Your task to perform on an android device: Open notification settings Image 0: 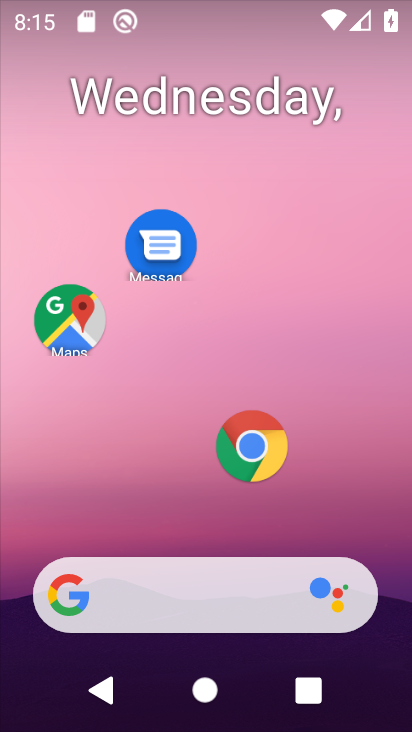
Step 0: press home button
Your task to perform on an android device: Open notification settings Image 1: 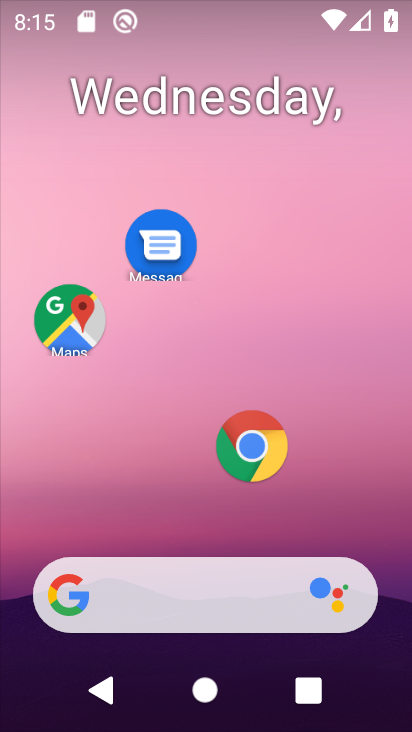
Step 1: drag from (311, 532) to (335, 22)
Your task to perform on an android device: Open notification settings Image 2: 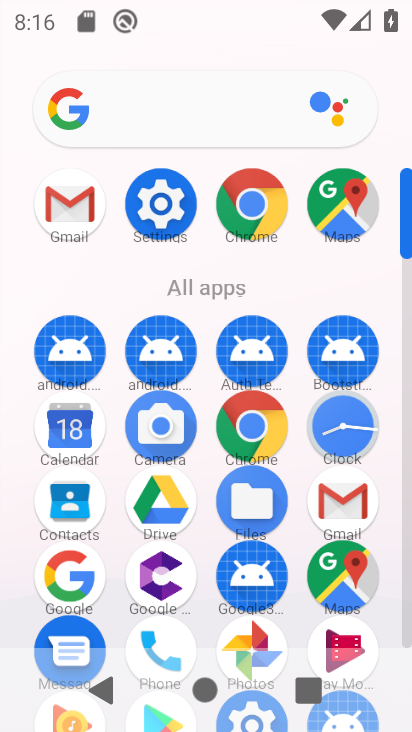
Step 2: click (161, 202)
Your task to perform on an android device: Open notification settings Image 3: 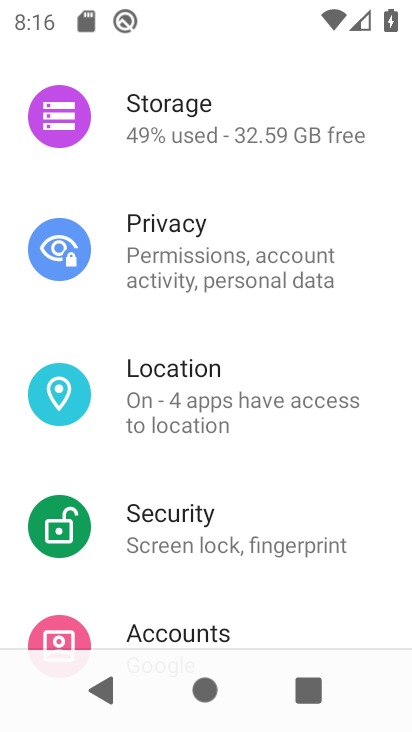
Step 3: drag from (112, 137) to (96, 652)
Your task to perform on an android device: Open notification settings Image 4: 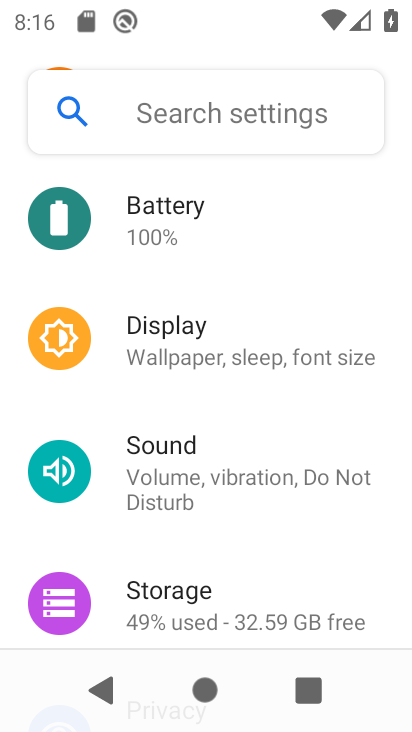
Step 4: drag from (102, 193) to (100, 689)
Your task to perform on an android device: Open notification settings Image 5: 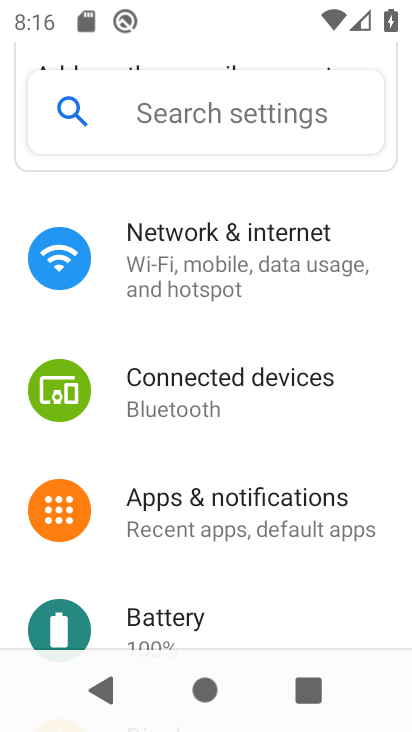
Step 5: click (107, 500)
Your task to perform on an android device: Open notification settings Image 6: 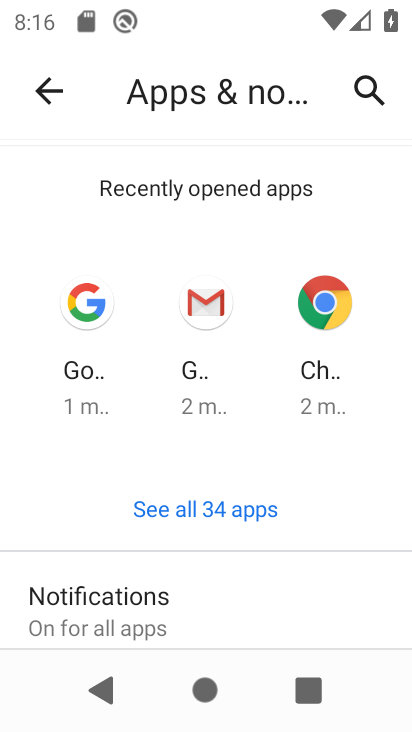
Step 6: click (176, 614)
Your task to perform on an android device: Open notification settings Image 7: 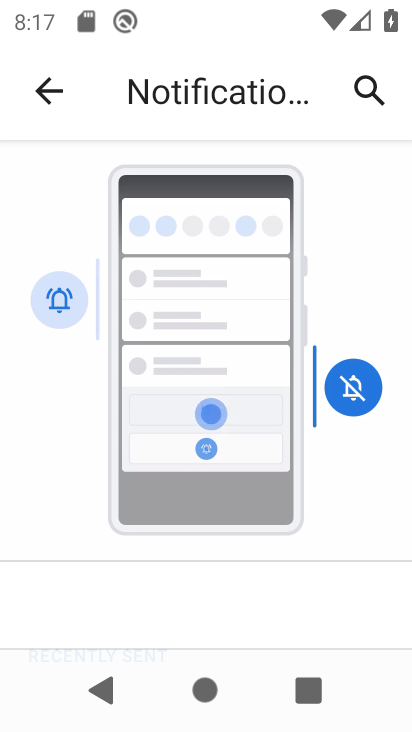
Step 7: drag from (215, 619) to (207, 170)
Your task to perform on an android device: Open notification settings Image 8: 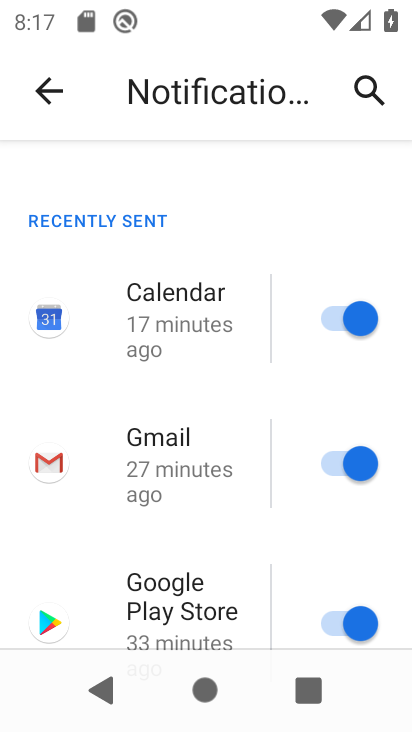
Step 8: drag from (222, 558) to (231, 106)
Your task to perform on an android device: Open notification settings Image 9: 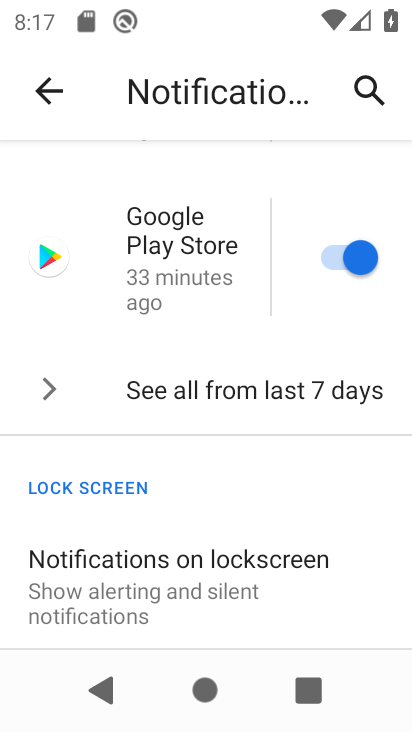
Step 9: drag from (195, 575) to (187, 188)
Your task to perform on an android device: Open notification settings Image 10: 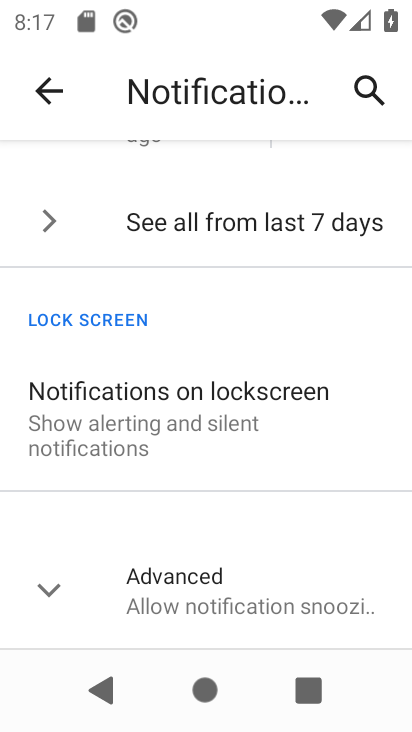
Step 10: click (60, 592)
Your task to perform on an android device: Open notification settings Image 11: 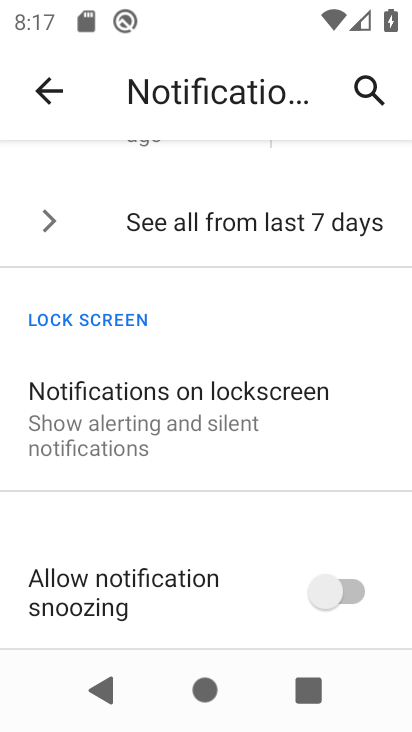
Step 11: drag from (247, 520) to (245, 130)
Your task to perform on an android device: Open notification settings Image 12: 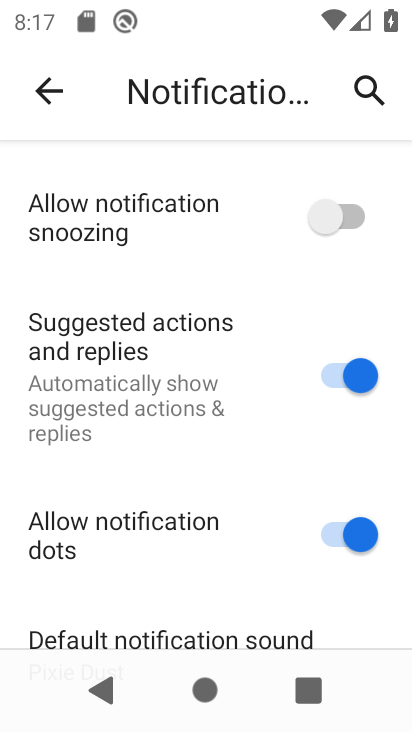
Step 12: click (334, 204)
Your task to perform on an android device: Open notification settings Image 13: 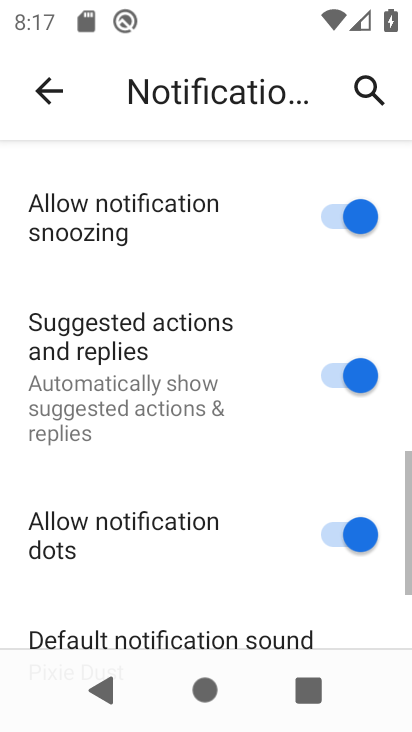
Step 13: task complete